Your task to perform on an android device: change the clock display to show seconds Image 0: 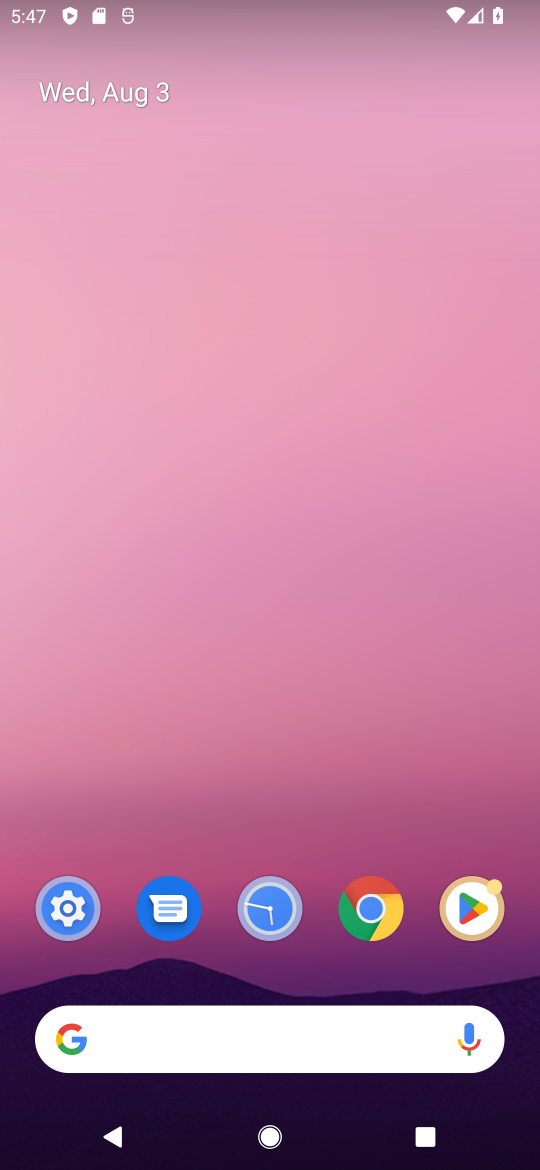
Step 0: drag from (306, 993) to (320, 102)
Your task to perform on an android device: change the clock display to show seconds Image 1: 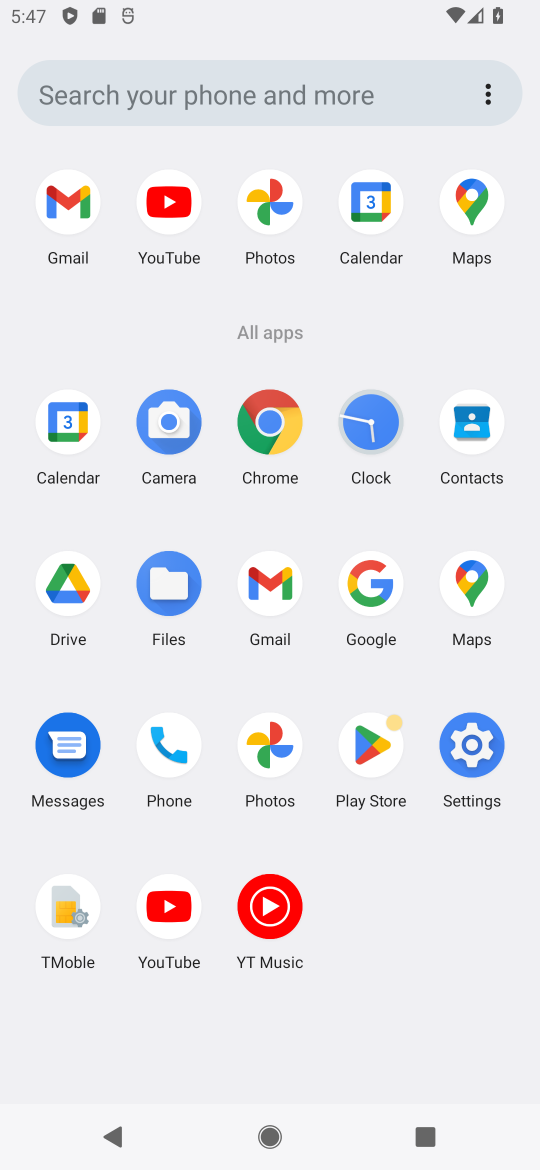
Step 1: click (382, 448)
Your task to perform on an android device: change the clock display to show seconds Image 2: 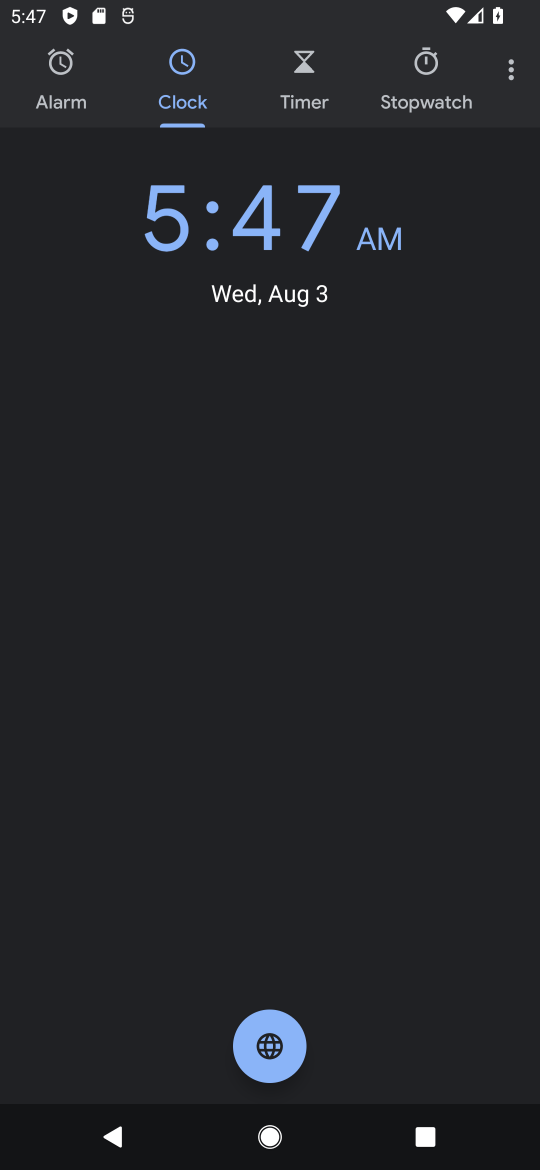
Step 2: click (514, 76)
Your task to perform on an android device: change the clock display to show seconds Image 3: 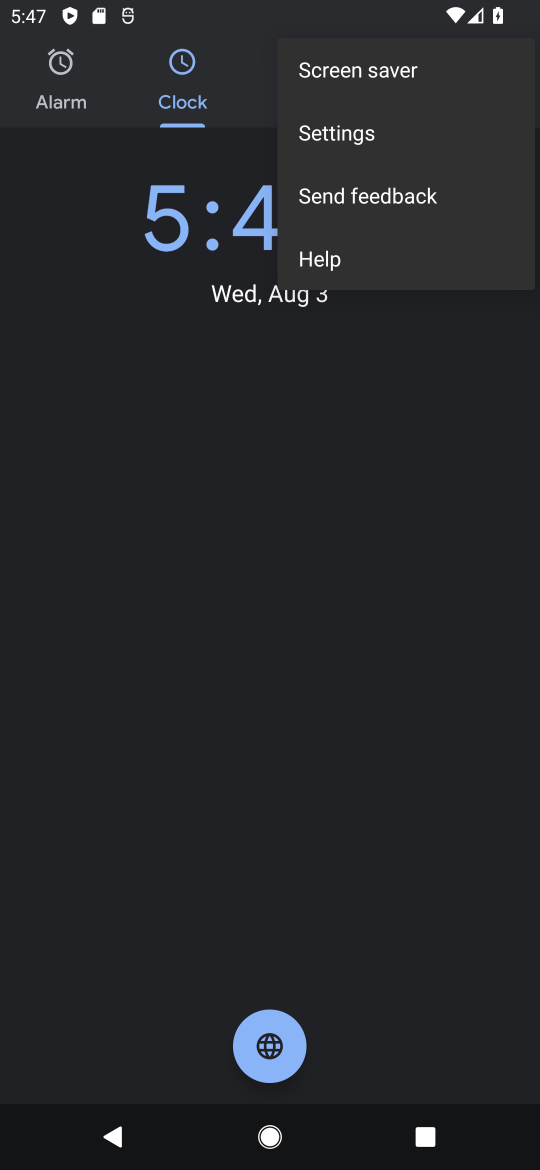
Step 3: click (343, 141)
Your task to perform on an android device: change the clock display to show seconds Image 4: 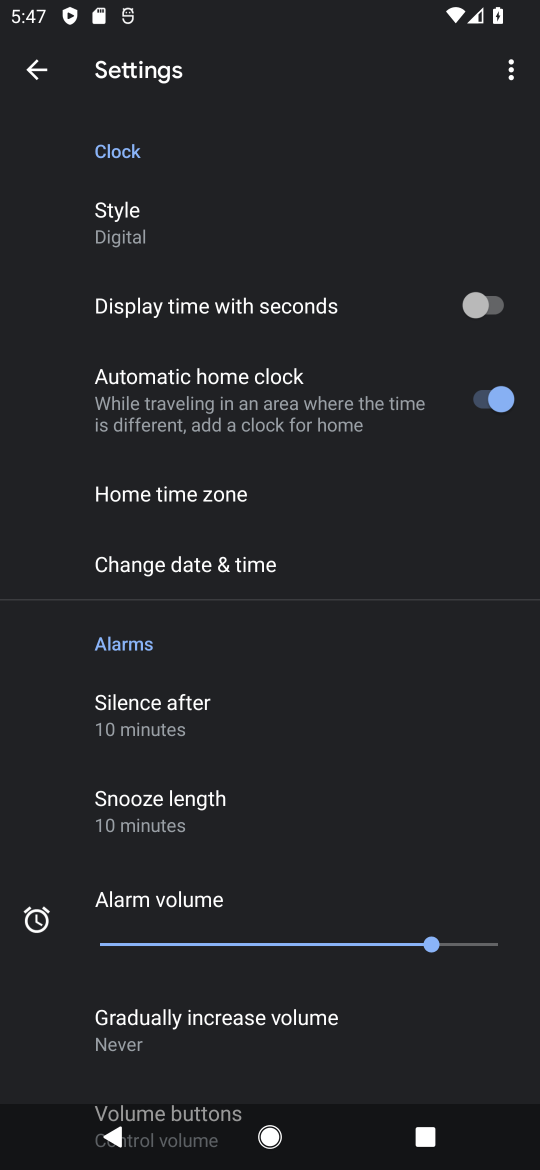
Step 4: click (164, 238)
Your task to perform on an android device: change the clock display to show seconds Image 5: 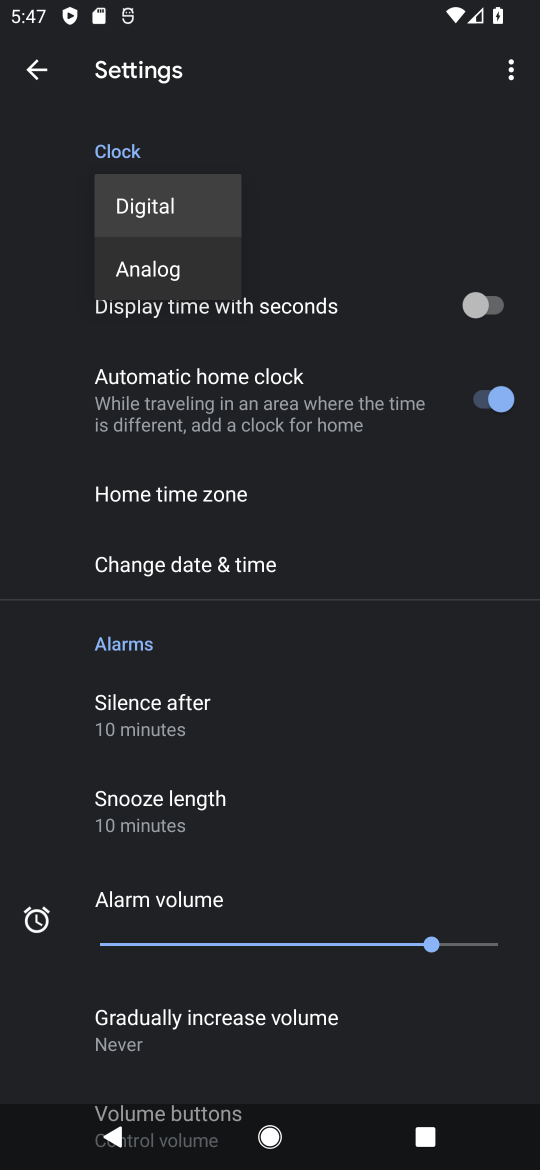
Step 5: click (165, 281)
Your task to perform on an android device: change the clock display to show seconds Image 6: 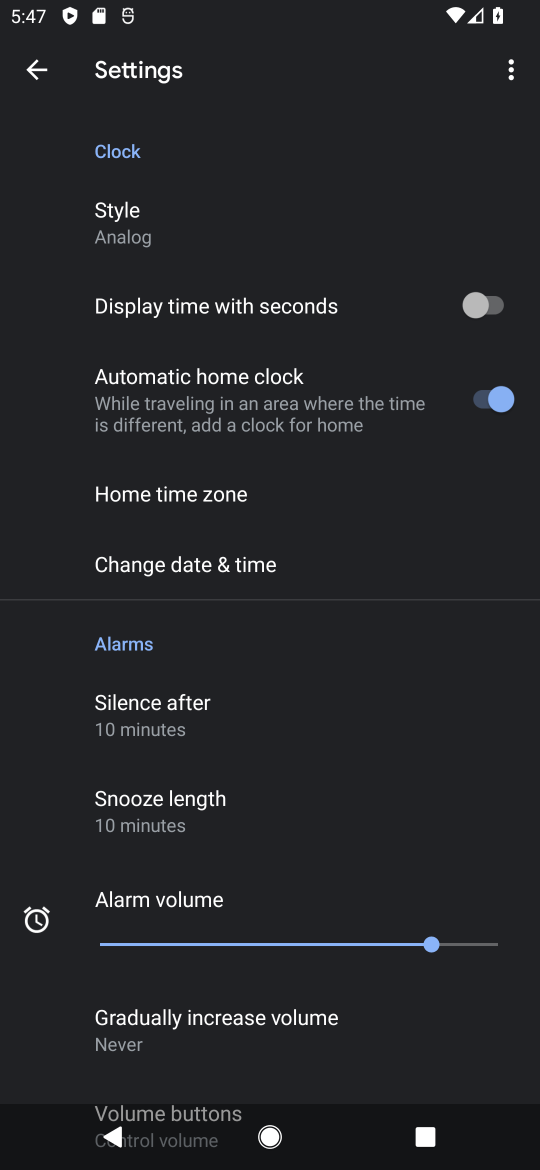
Step 6: click (498, 301)
Your task to perform on an android device: change the clock display to show seconds Image 7: 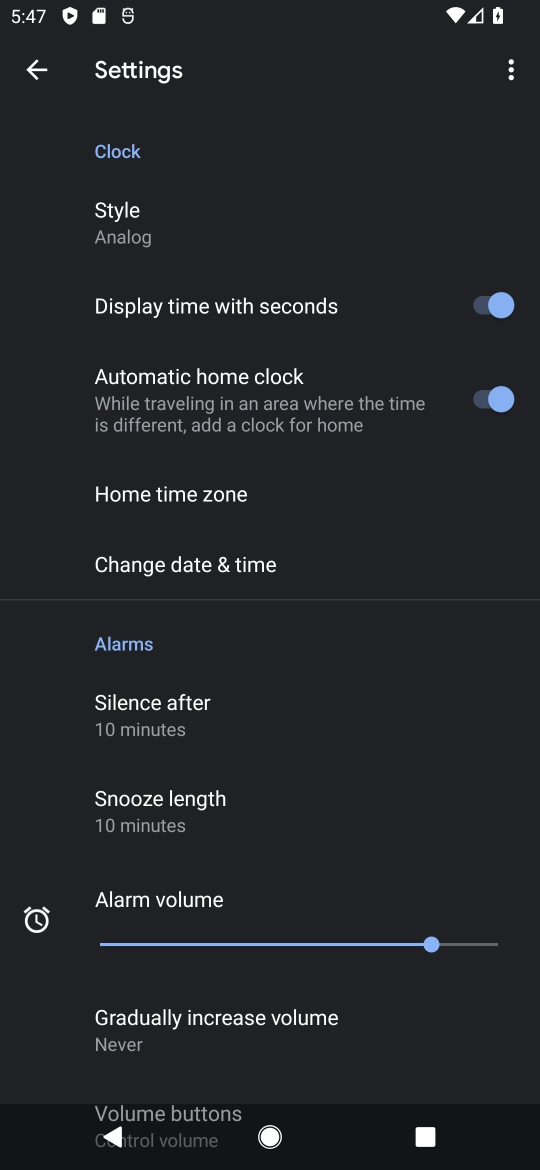
Step 7: task complete